Your task to perform on an android device: turn on airplane mode Image 0: 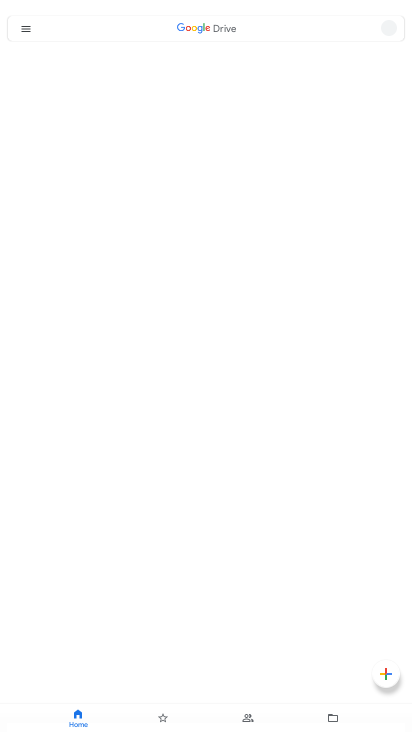
Step 0: drag from (273, 605) to (166, 152)
Your task to perform on an android device: turn on airplane mode Image 1: 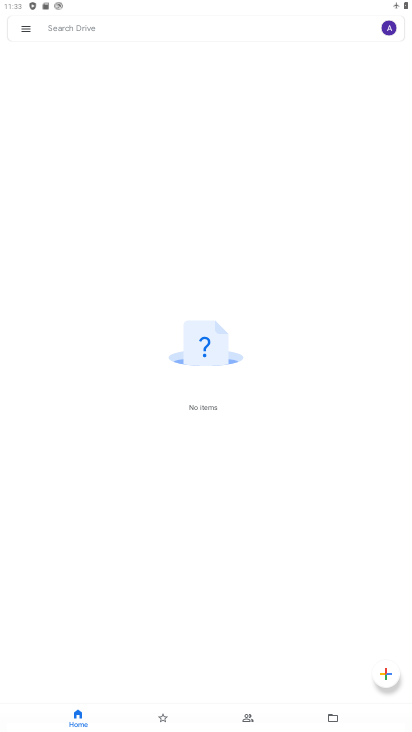
Step 1: press home button
Your task to perform on an android device: turn on airplane mode Image 2: 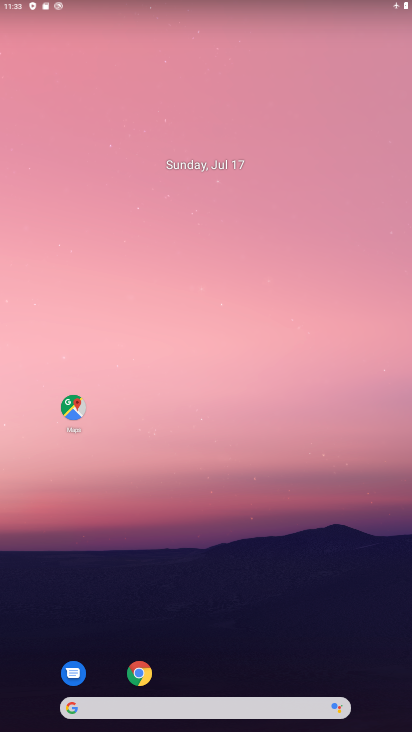
Step 2: drag from (234, 570) to (109, 42)
Your task to perform on an android device: turn on airplane mode Image 3: 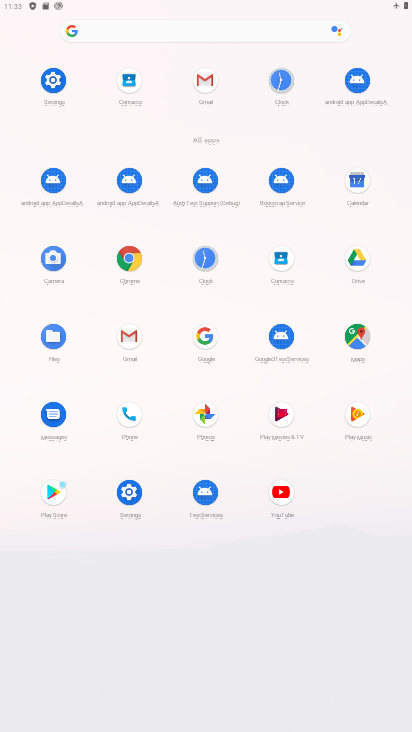
Step 3: click (51, 77)
Your task to perform on an android device: turn on airplane mode Image 4: 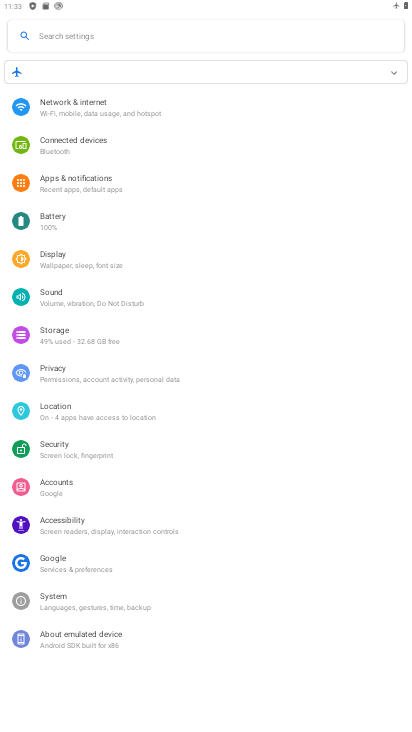
Step 4: click (55, 103)
Your task to perform on an android device: turn on airplane mode Image 5: 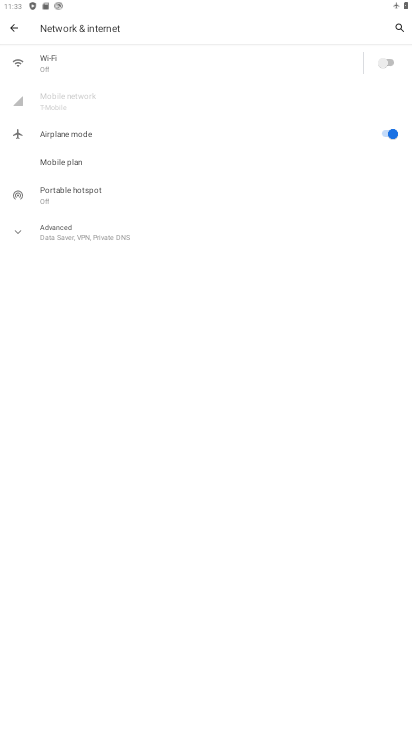
Step 5: task complete